Your task to perform on an android device: open sync settings in chrome Image 0: 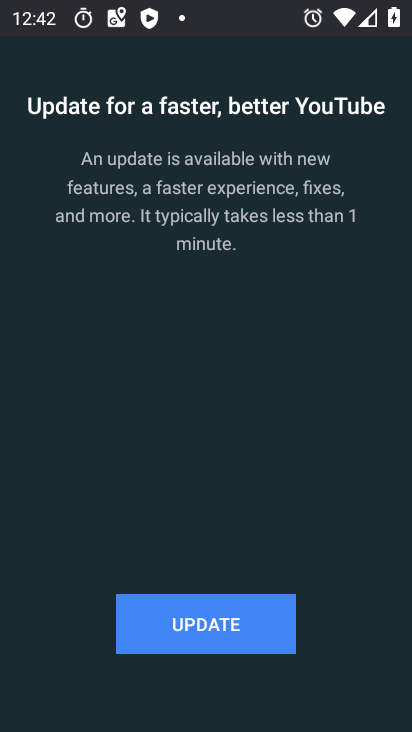
Step 0: press home button
Your task to perform on an android device: open sync settings in chrome Image 1: 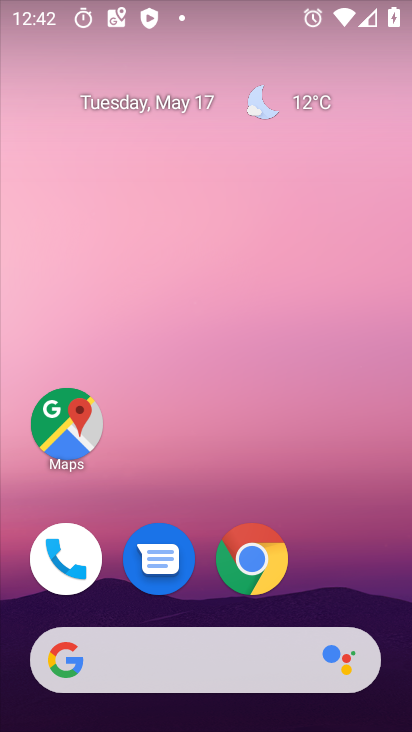
Step 1: click (253, 550)
Your task to perform on an android device: open sync settings in chrome Image 2: 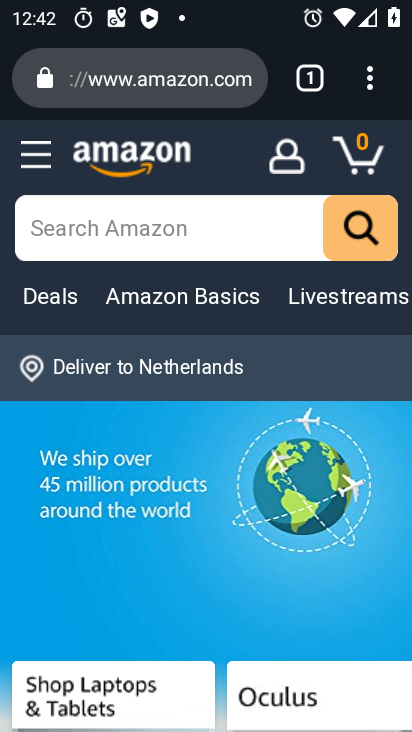
Step 2: drag from (370, 81) to (226, 624)
Your task to perform on an android device: open sync settings in chrome Image 3: 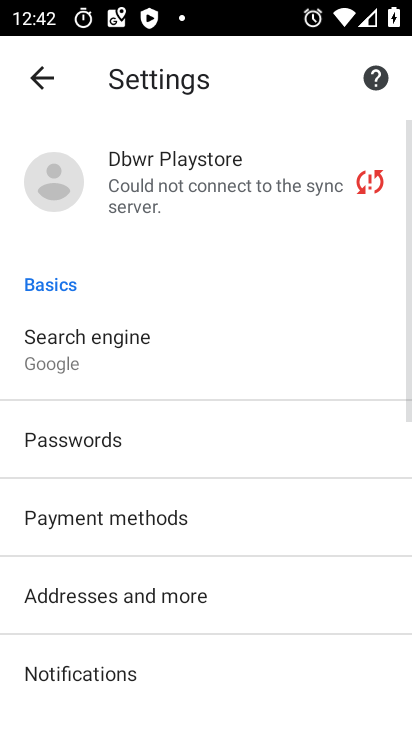
Step 3: click (238, 171)
Your task to perform on an android device: open sync settings in chrome Image 4: 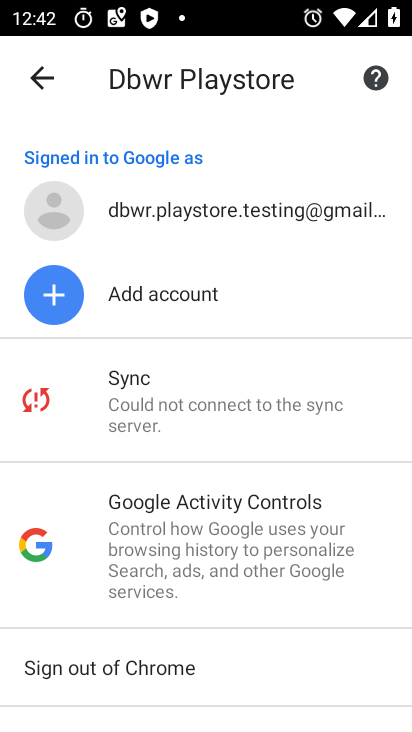
Step 4: click (178, 383)
Your task to perform on an android device: open sync settings in chrome Image 5: 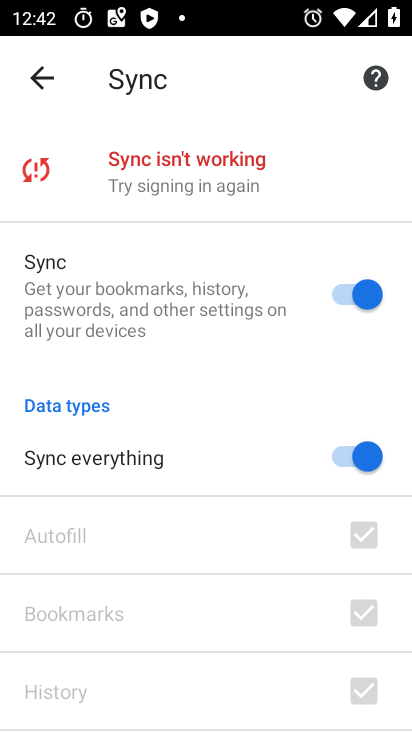
Step 5: task complete